Your task to perform on an android device: find which apps use the phone's location Image 0: 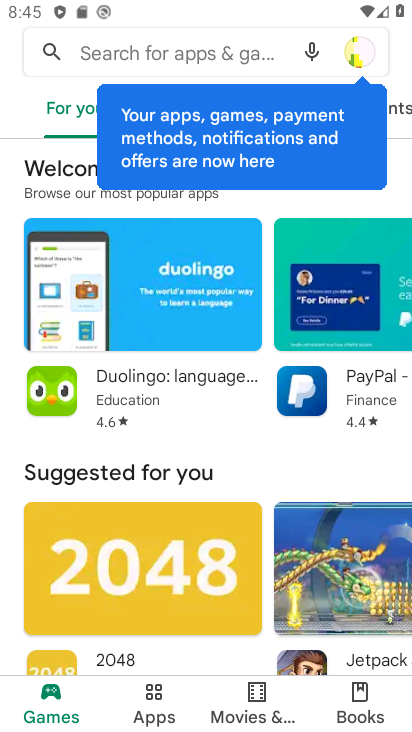
Step 0: press home button
Your task to perform on an android device: find which apps use the phone's location Image 1: 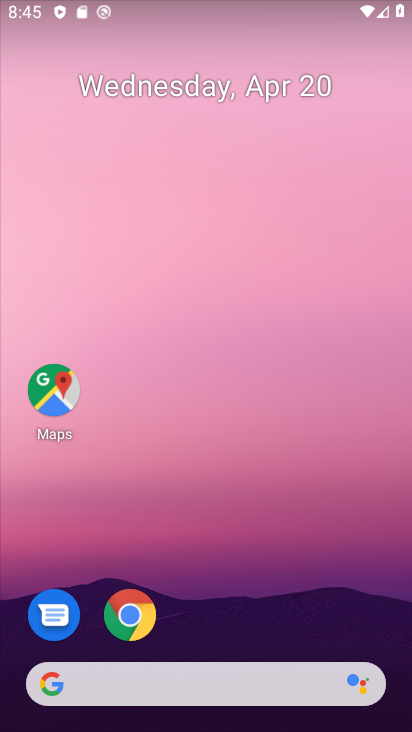
Step 1: drag from (230, 607) to (258, 52)
Your task to perform on an android device: find which apps use the phone's location Image 2: 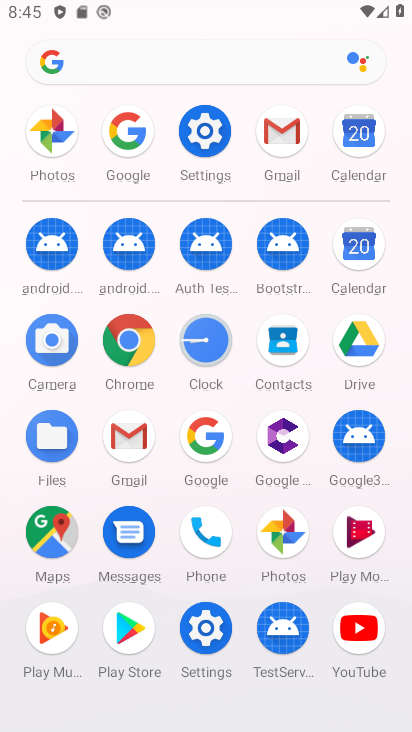
Step 2: click (208, 132)
Your task to perform on an android device: find which apps use the phone's location Image 3: 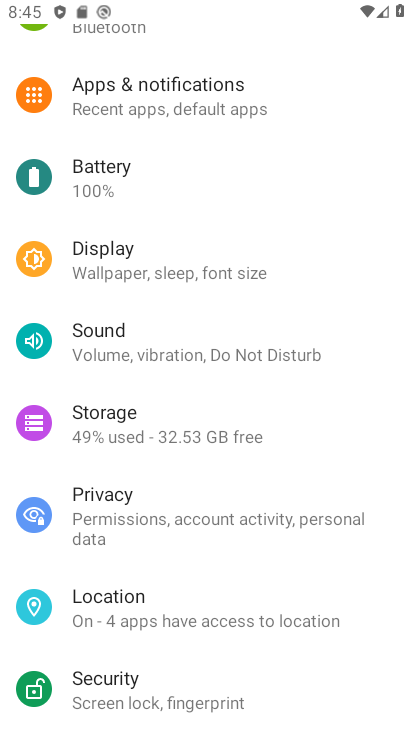
Step 3: click (124, 604)
Your task to perform on an android device: find which apps use the phone's location Image 4: 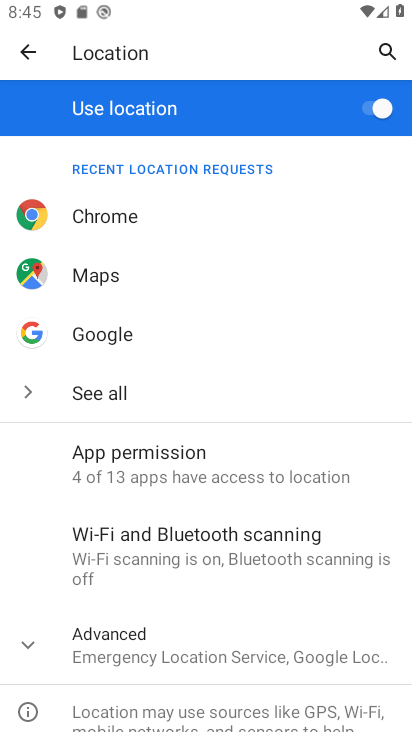
Step 4: click (191, 478)
Your task to perform on an android device: find which apps use the phone's location Image 5: 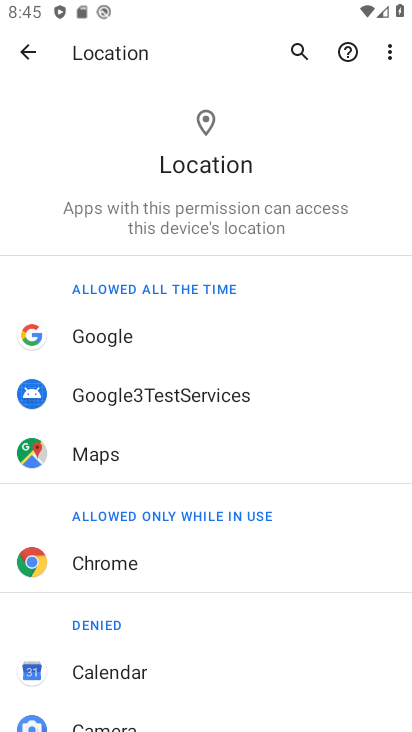
Step 5: click (89, 456)
Your task to perform on an android device: find which apps use the phone's location Image 6: 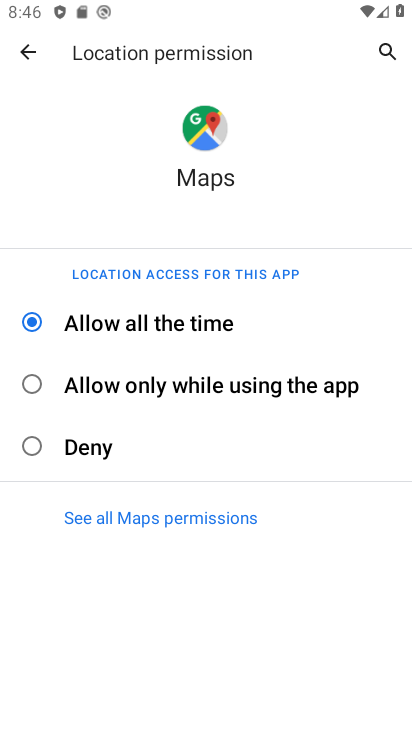
Step 6: task complete